Your task to perform on an android device: Go to Maps Image 0: 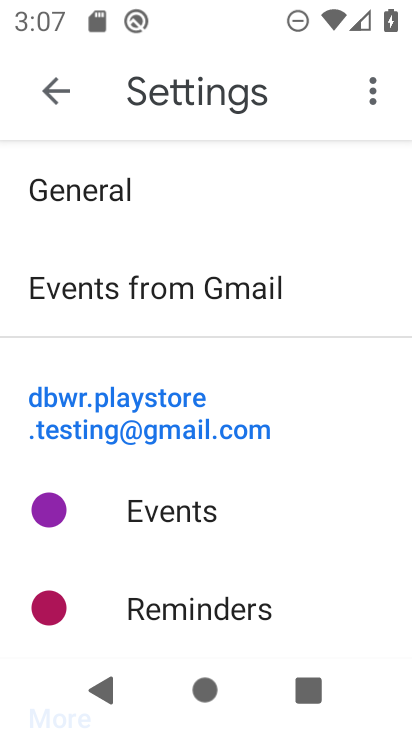
Step 0: press home button
Your task to perform on an android device: Go to Maps Image 1: 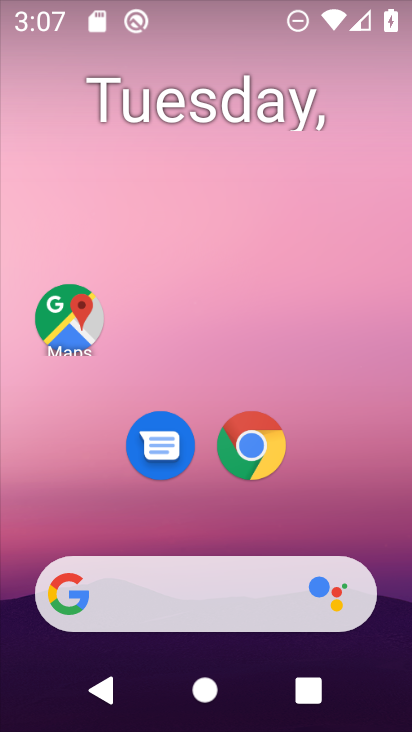
Step 1: click (67, 325)
Your task to perform on an android device: Go to Maps Image 2: 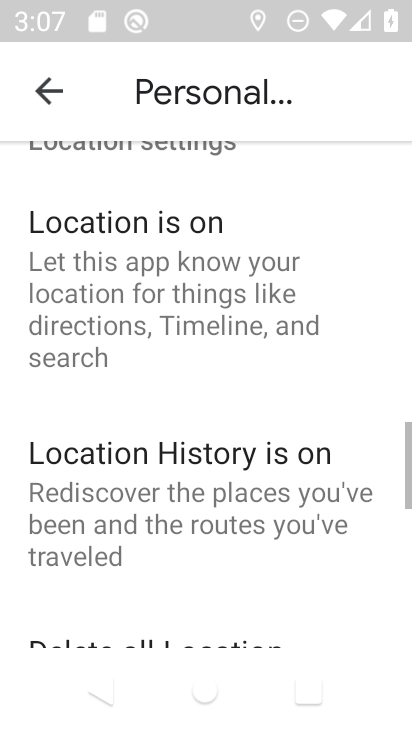
Step 2: click (41, 94)
Your task to perform on an android device: Go to Maps Image 3: 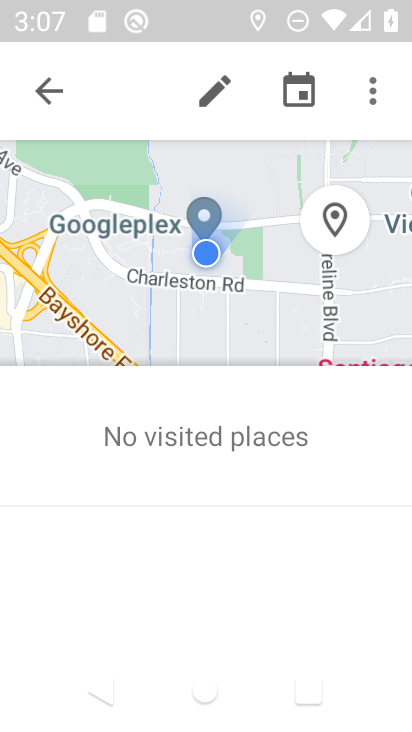
Step 3: click (41, 94)
Your task to perform on an android device: Go to Maps Image 4: 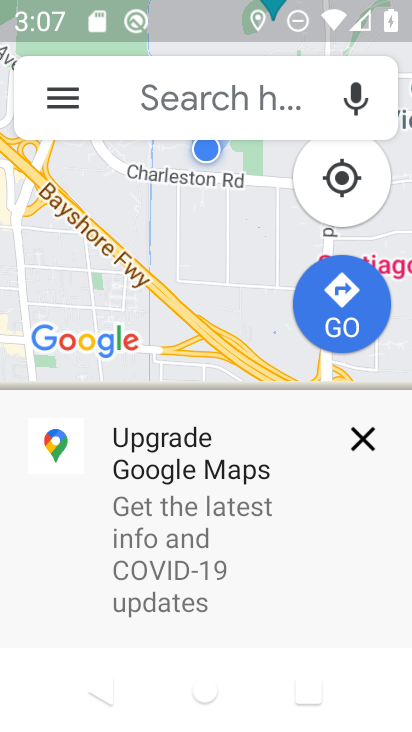
Step 4: task complete